Your task to perform on an android device: check android version Image 0: 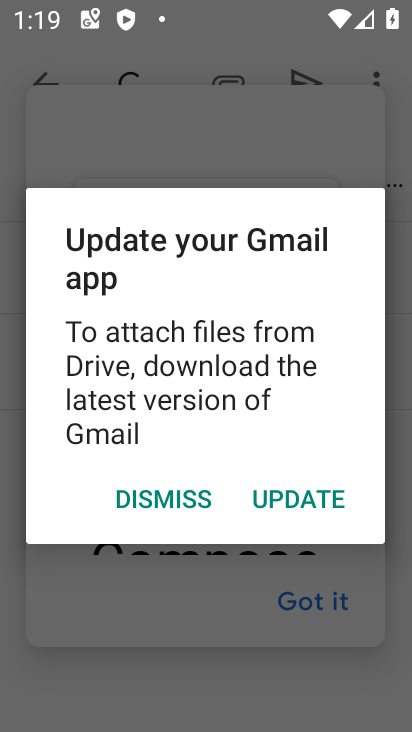
Step 0: press home button
Your task to perform on an android device: check android version Image 1: 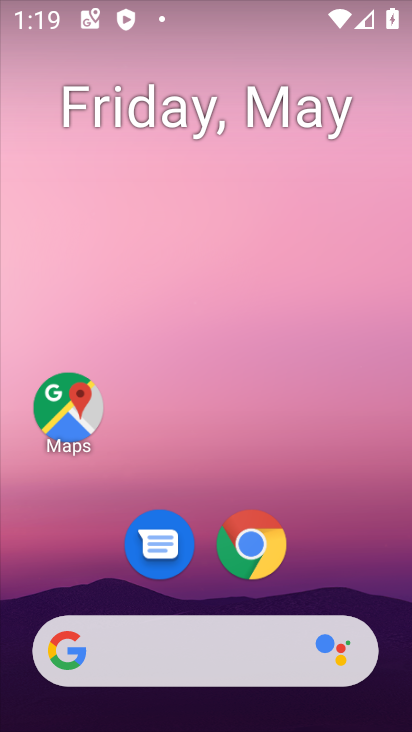
Step 1: drag from (89, 579) to (313, 157)
Your task to perform on an android device: check android version Image 2: 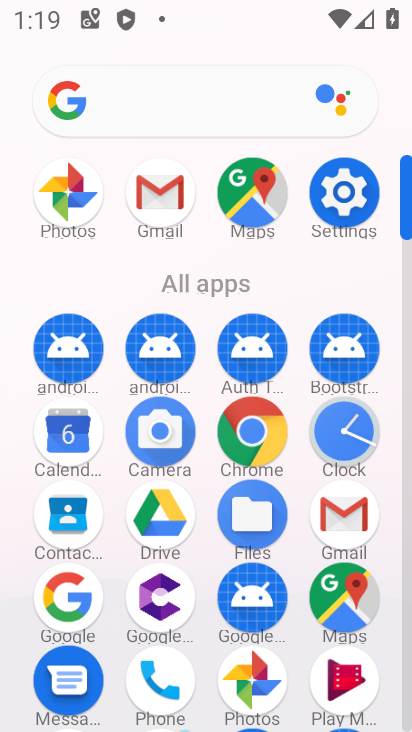
Step 2: click (366, 208)
Your task to perform on an android device: check android version Image 3: 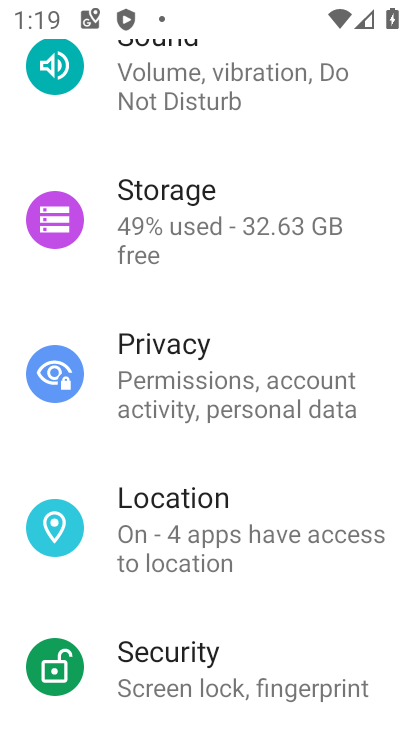
Step 3: drag from (150, 679) to (290, 111)
Your task to perform on an android device: check android version Image 4: 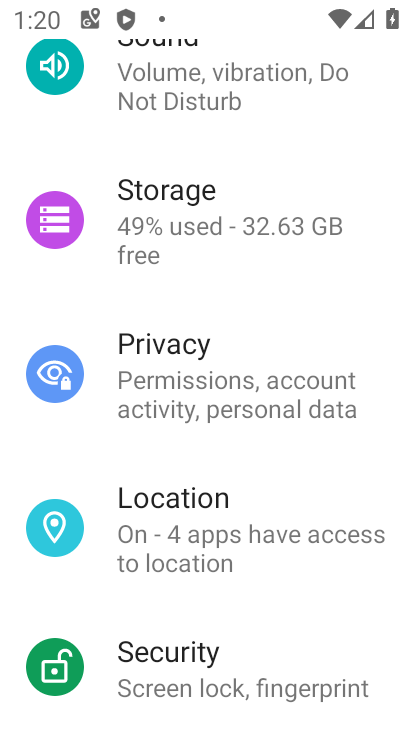
Step 4: drag from (147, 674) to (284, 150)
Your task to perform on an android device: check android version Image 5: 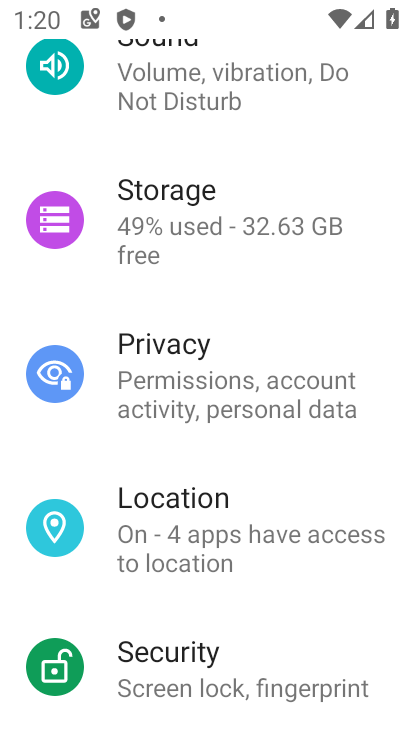
Step 5: drag from (31, 651) to (278, 103)
Your task to perform on an android device: check android version Image 6: 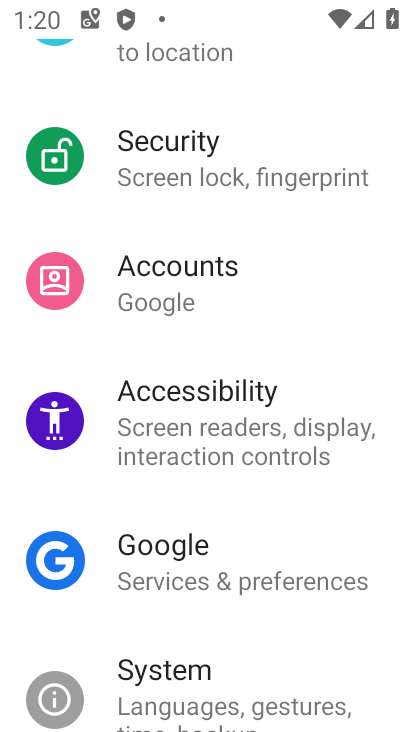
Step 6: drag from (82, 691) to (322, 123)
Your task to perform on an android device: check android version Image 7: 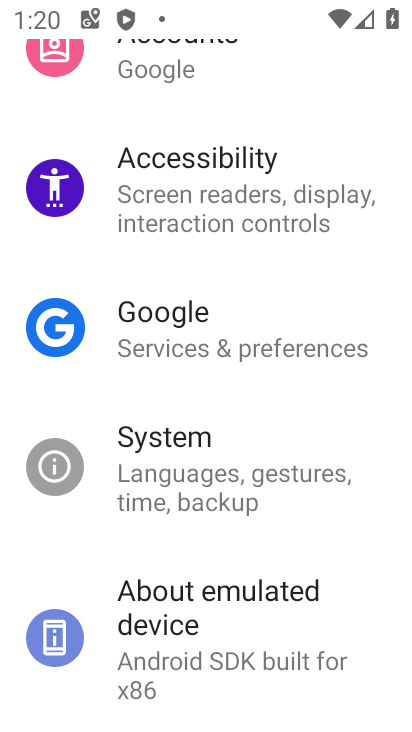
Step 7: click (281, 589)
Your task to perform on an android device: check android version Image 8: 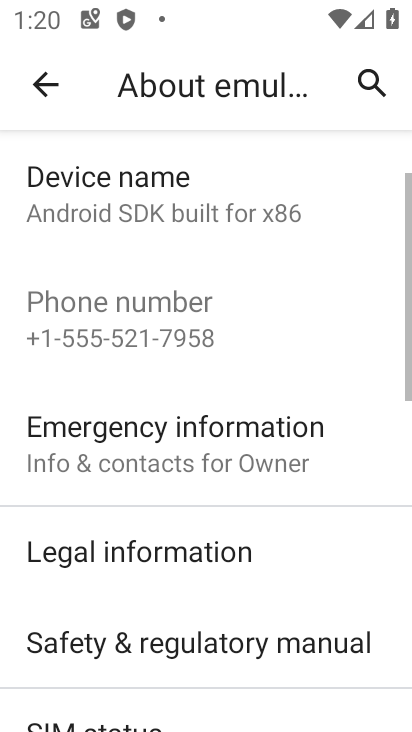
Step 8: drag from (118, 639) to (241, 158)
Your task to perform on an android device: check android version Image 9: 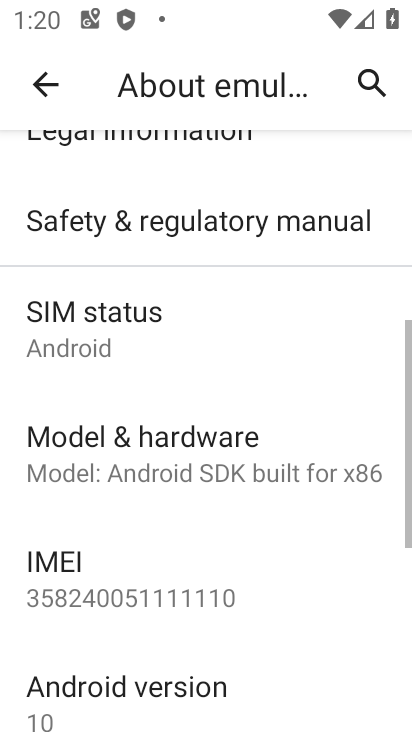
Step 9: drag from (82, 680) to (180, 325)
Your task to perform on an android device: check android version Image 10: 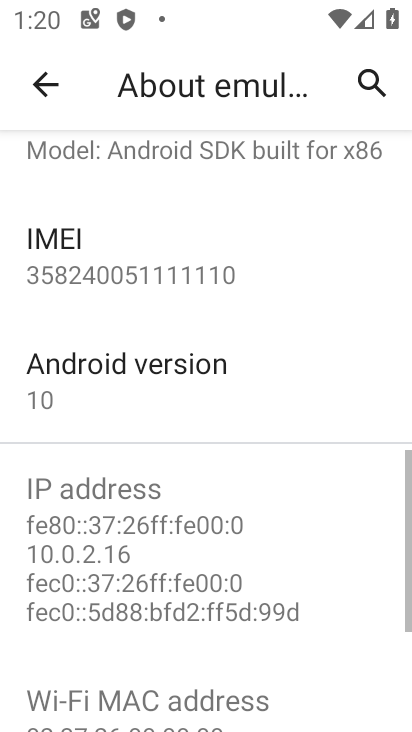
Step 10: click (157, 388)
Your task to perform on an android device: check android version Image 11: 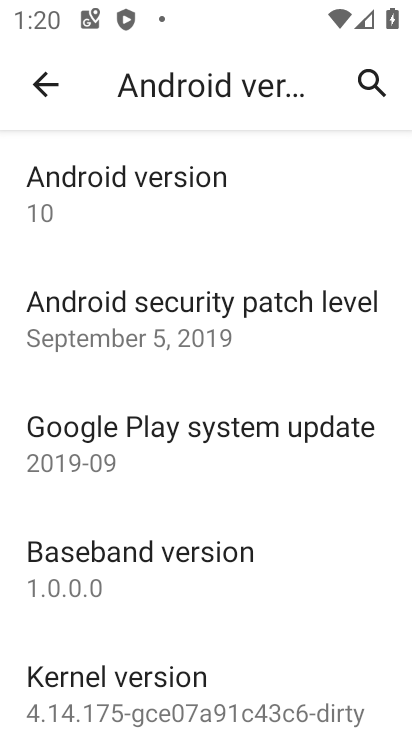
Step 11: task complete